Your task to perform on an android device: When is my next meeting? Image 0: 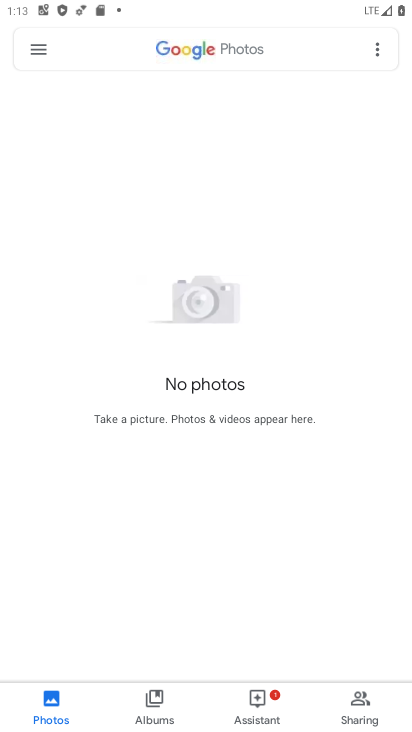
Step 0: press home button
Your task to perform on an android device: When is my next meeting? Image 1: 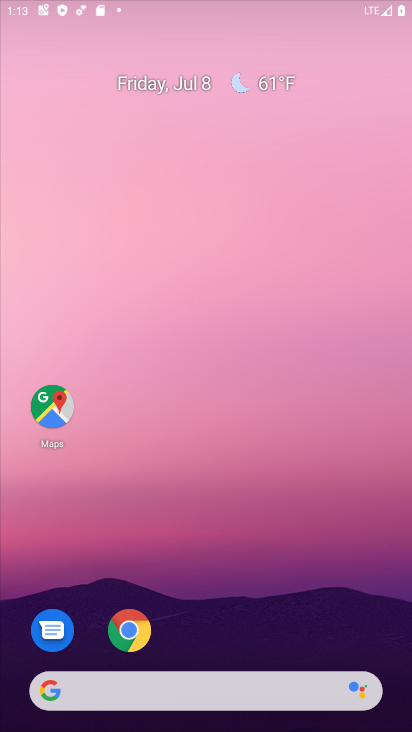
Step 1: drag from (391, 662) to (229, 8)
Your task to perform on an android device: When is my next meeting? Image 2: 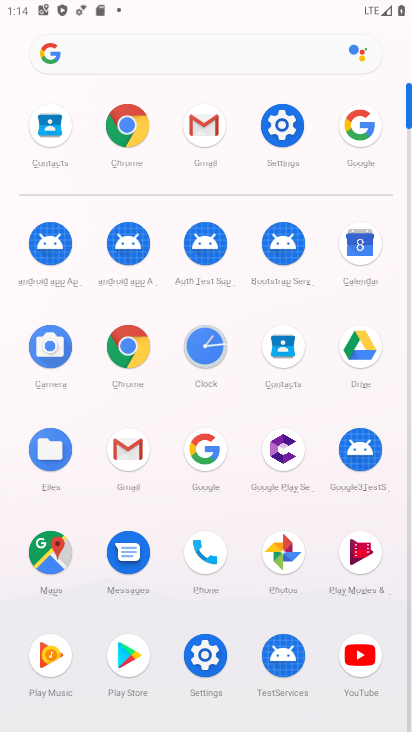
Step 2: click (338, 257)
Your task to perform on an android device: When is my next meeting? Image 3: 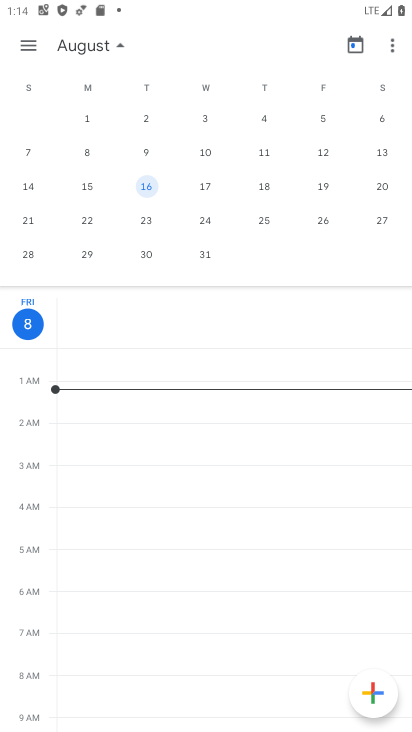
Step 3: task complete